Your task to perform on an android device: turn on airplane mode Image 0: 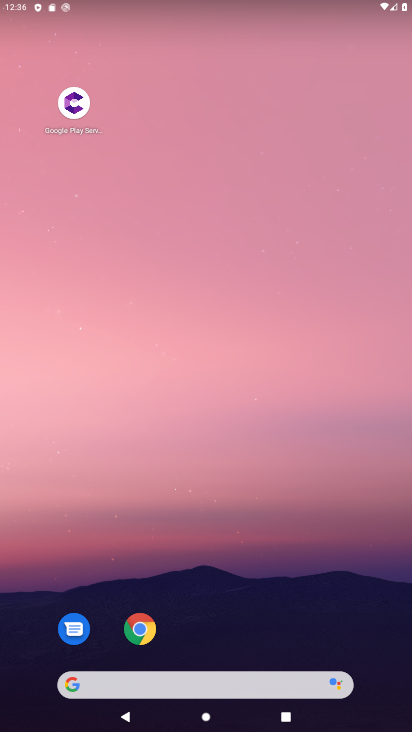
Step 0: drag from (176, 649) to (158, 41)
Your task to perform on an android device: turn on airplane mode Image 1: 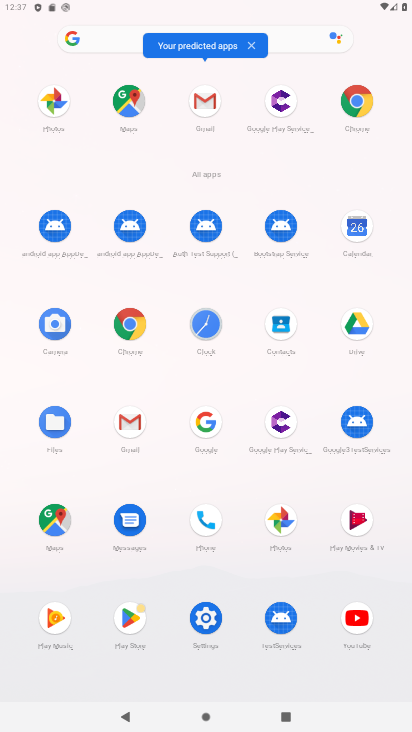
Step 1: click (214, 647)
Your task to perform on an android device: turn on airplane mode Image 2: 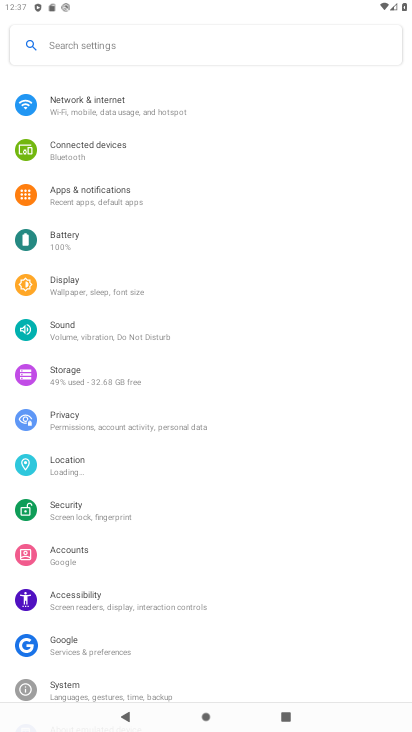
Step 2: click (216, 631)
Your task to perform on an android device: turn on airplane mode Image 3: 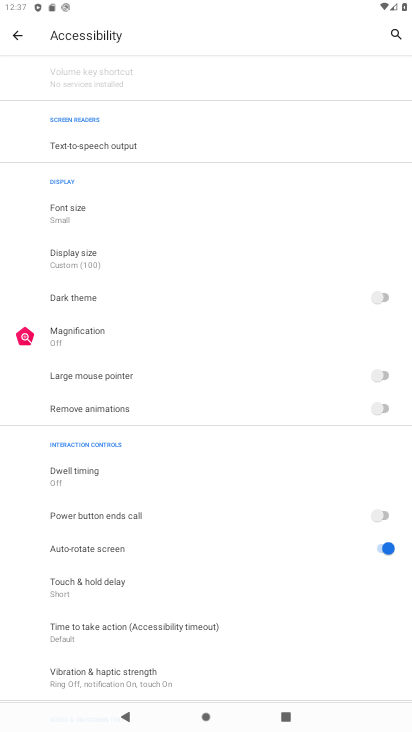
Step 3: click (27, 41)
Your task to perform on an android device: turn on airplane mode Image 4: 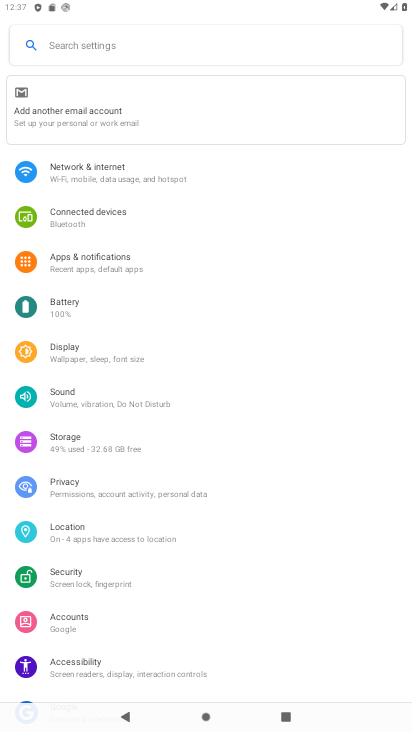
Step 4: click (84, 166)
Your task to perform on an android device: turn on airplane mode Image 5: 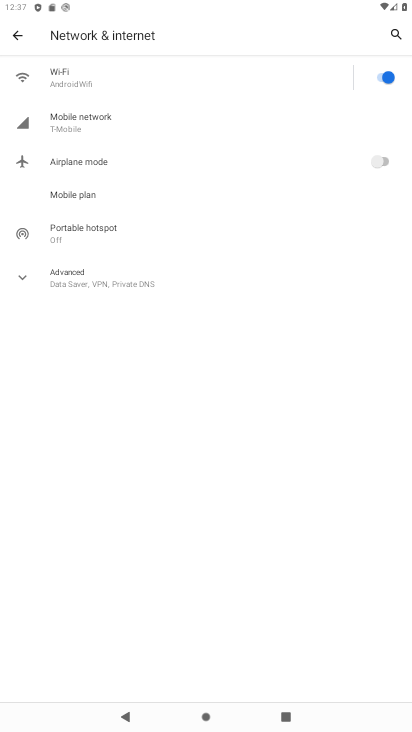
Step 5: click (381, 161)
Your task to perform on an android device: turn on airplane mode Image 6: 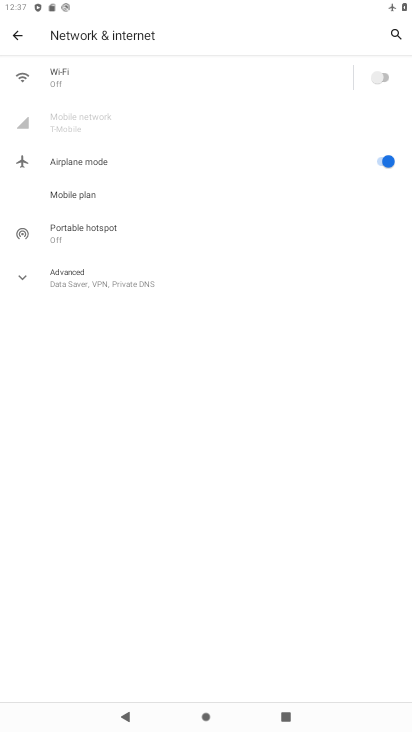
Step 6: task complete